Your task to perform on an android device: toggle wifi Image 0: 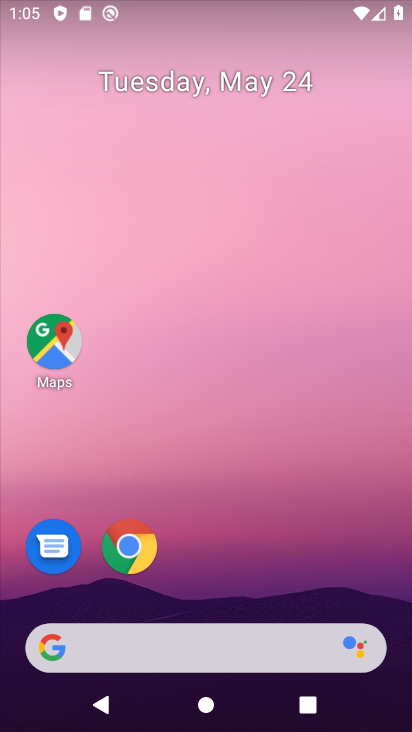
Step 0: drag from (207, 581) to (224, 37)
Your task to perform on an android device: toggle wifi Image 1: 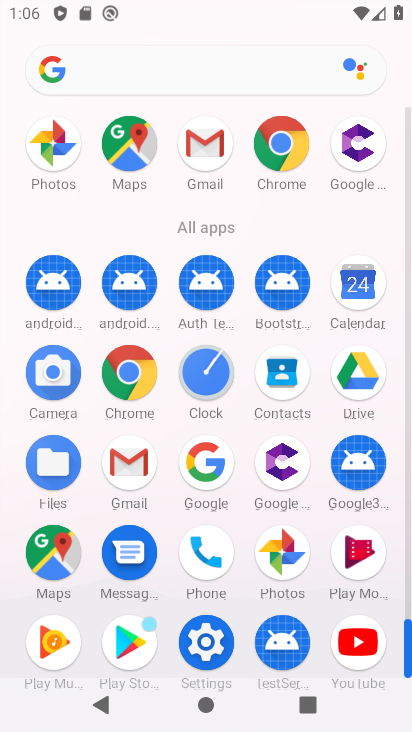
Step 1: click (214, 639)
Your task to perform on an android device: toggle wifi Image 2: 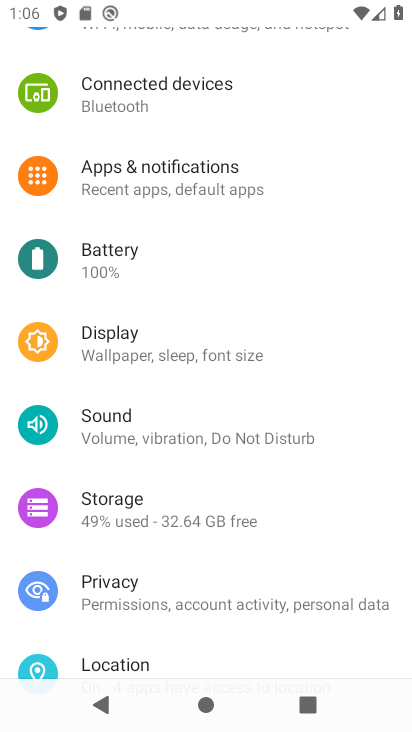
Step 2: drag from (146, 129) to (307, 713)
Your task to perform on an android device: toggle wifi Image 3: 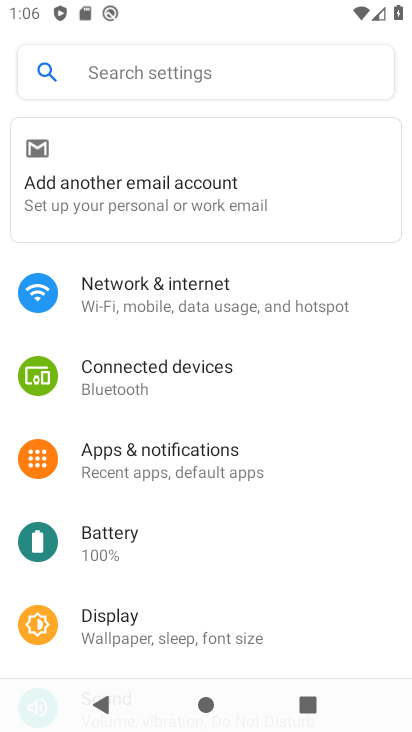
Step 3: click (170, 310)
Your task to perform on an android device: toggle wifi Image 4: 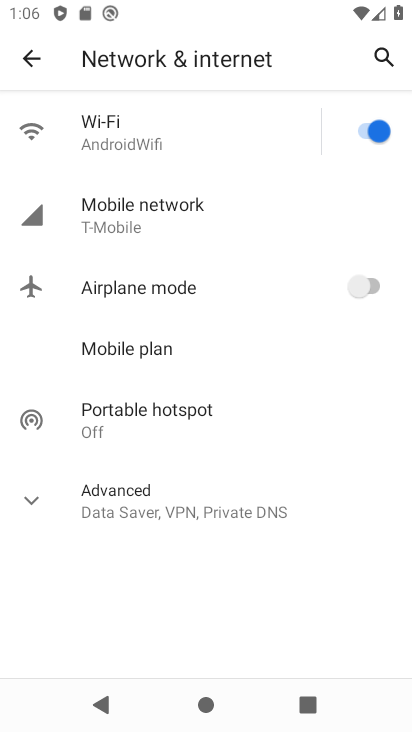
Step 4: click (150, 135)
Your task to perform on an android device: toggle wifi Image 5: 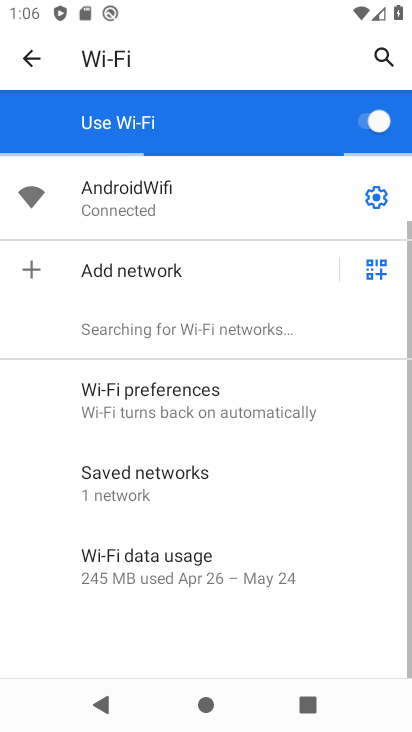
Step 5: click (355, 129)
Your task to perform on an android device: toggle wifi Image 6: 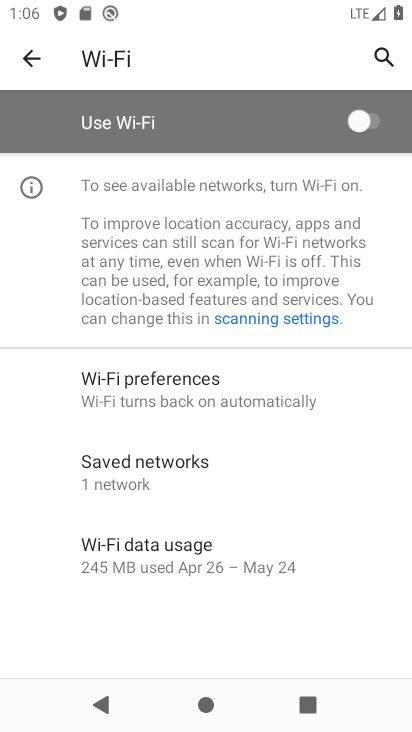
Step 6: task complete